Your task to perform on an android device: Search for seafood restaurants on Google Maps Image 0: 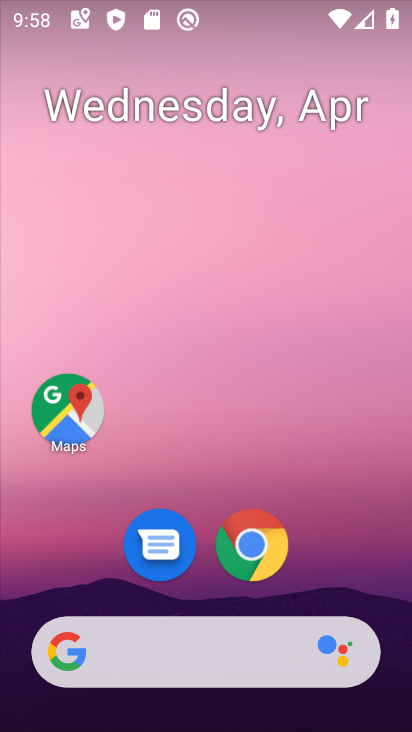
Step 0: click (65, 411)
Your task to perform on an android device: Search for seafood restaurants on Google Maps Image 1: 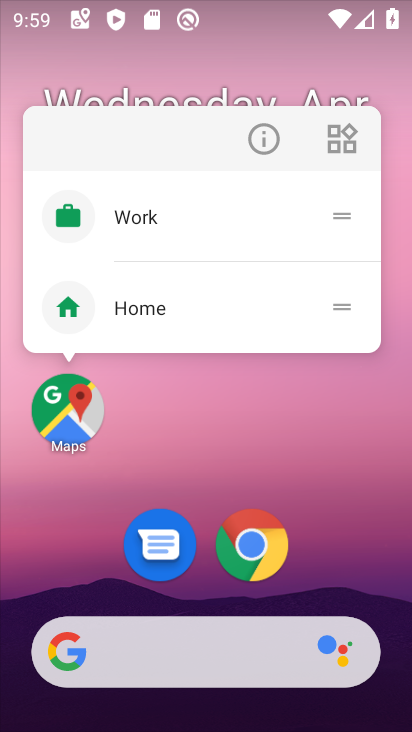
Step 1: click (71, 410)
Your task to perform on an android device: Search for seafood restaurants on Google Maps Image 2: 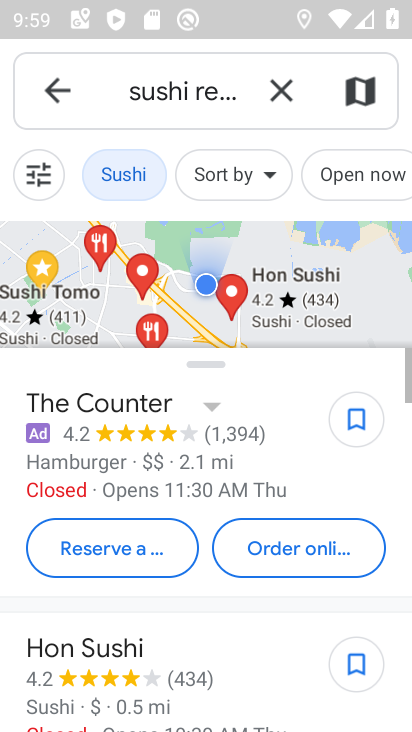
Step 2: click (272, 98)
Your task to perform on an android device: Search for seafood restaurants on Google Maps Image 3: 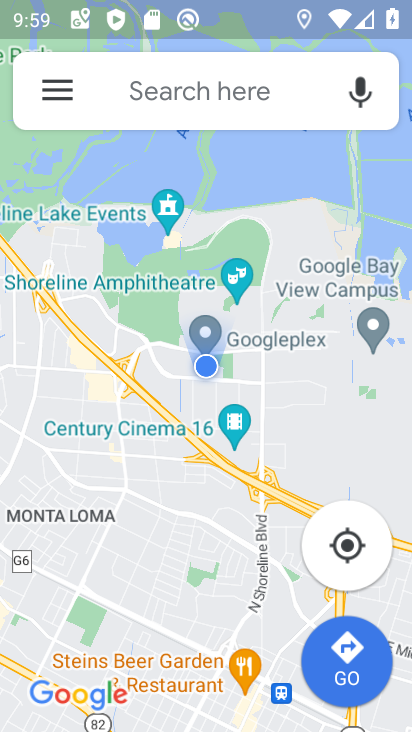
Step 3: click (153, 89)
Your task to perform on an android device: Search for seafood restaurants on Google Maps Image 4: 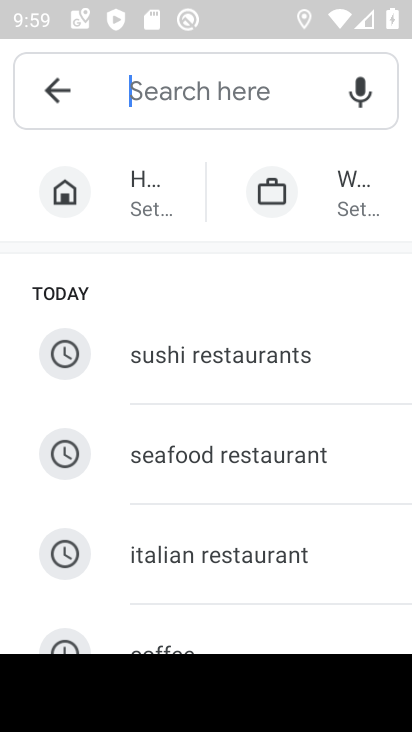
Step 4: type "seafood restaurant"
Your task to perform on an android device: Search for seafood restaurants on Google Maps Image 5: 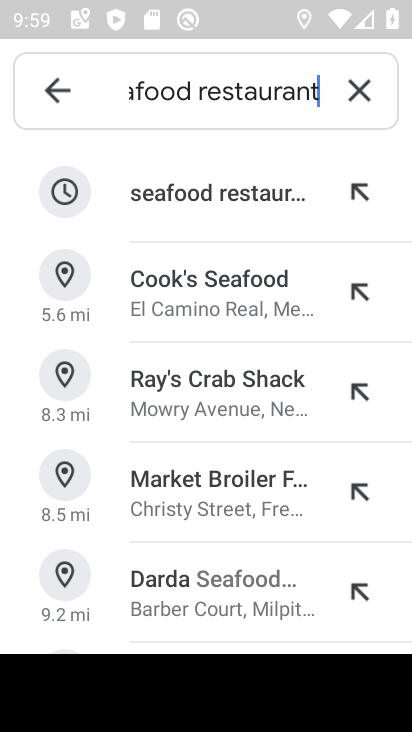
Step 5: click (180, 205)
Your task to perform on an android device: Search for seafood restaurants on Google Maps Image 6: 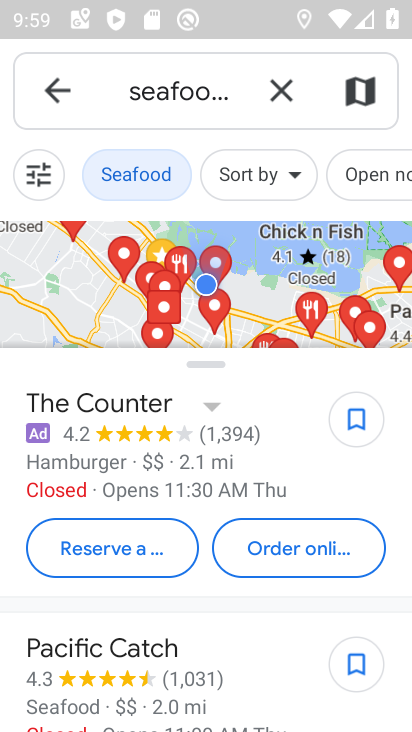
Step 6: task complete